Your task to perform on an android device: Go to ESPN.com Image 0: 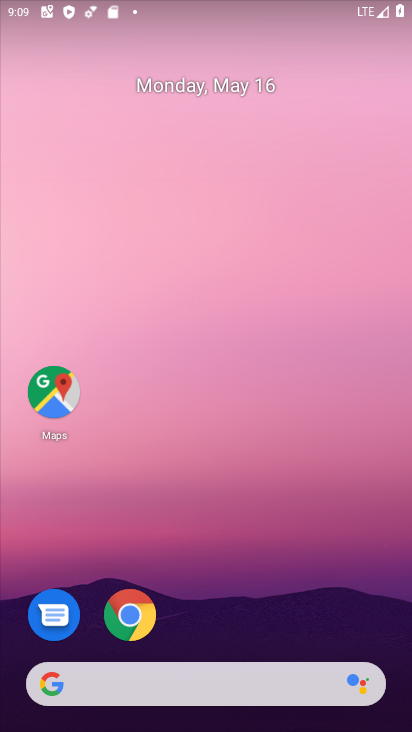
Step 0: drag from (259, 661) to (327, 222)
Your task to perform on an android device: Go to ESPN.com Image 1: 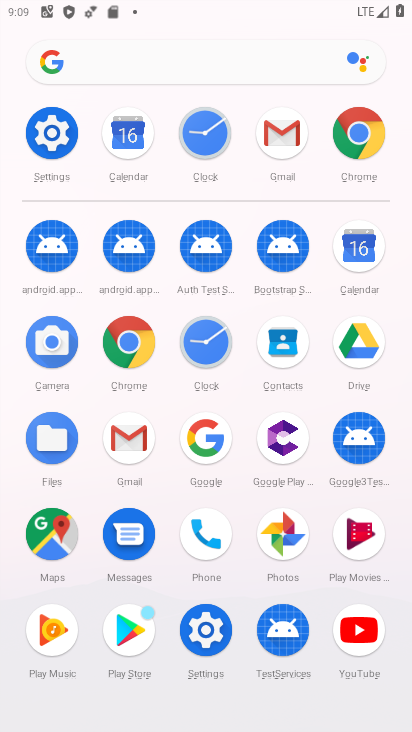
Step 1: click (378, 164)
Your task to perform on an android device: Go to ESPN.com Image 2: 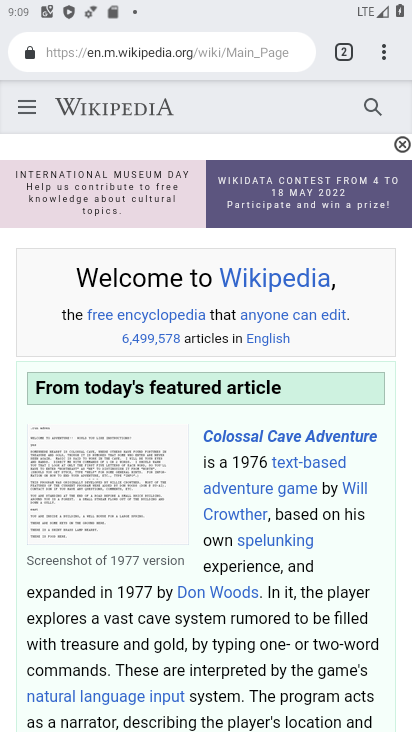
Step 2: click (245, 59)
Your task to perform on an android device: Go to ESPN.com Image 3: 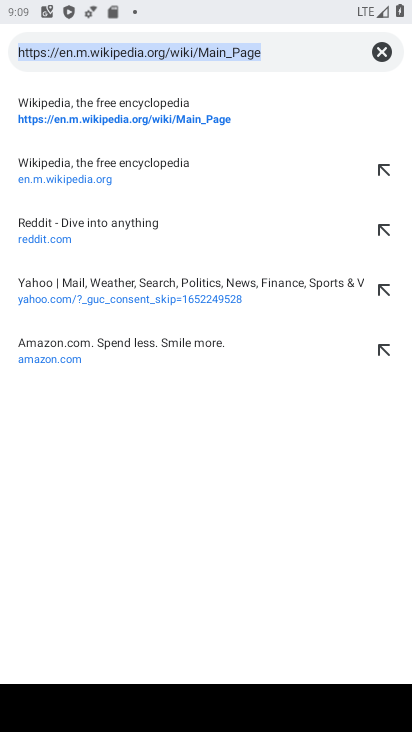
Step 3: type "espn"
Your task to perform on an android device: Go to ESPN.com Image 4: 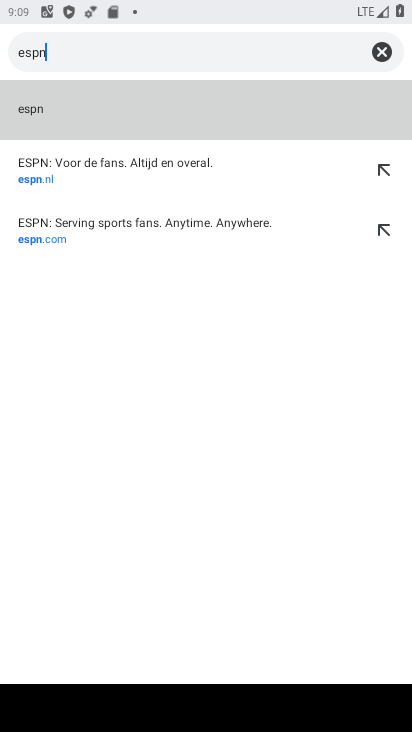
Step 4: click (198, 185)
Your task to perform on an android device: Go to ESPN.com Image 5: 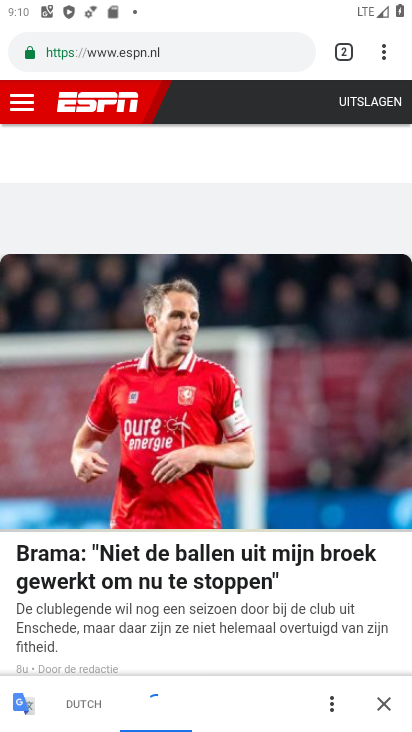
Step 5: task complete